Your task to perform on an android device: Go to network settings Image 0: 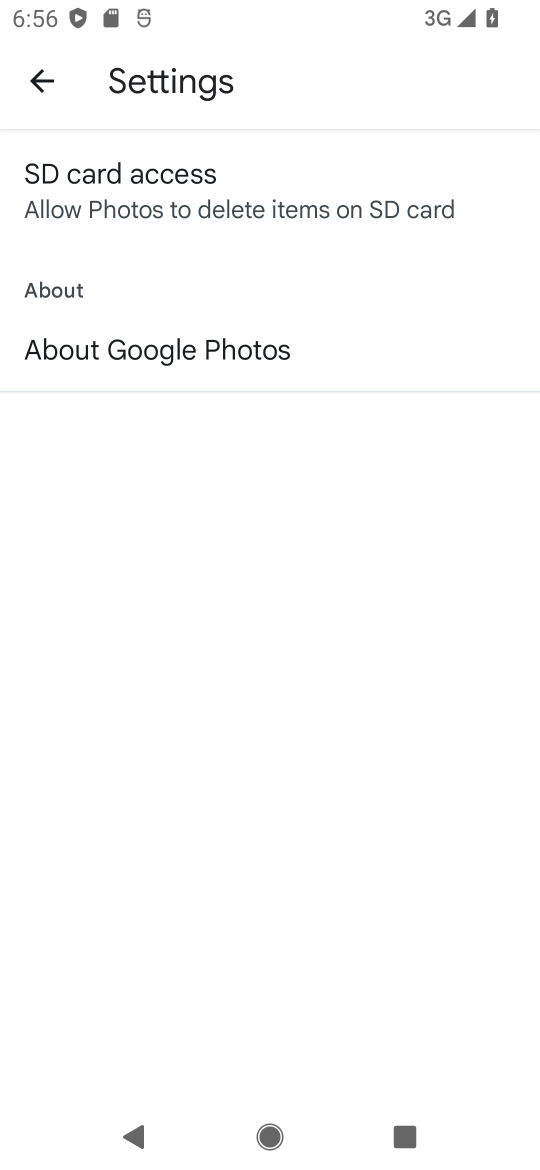
Step 0: press home button
Your task to perform on an android device: Go to network settings Image 1: 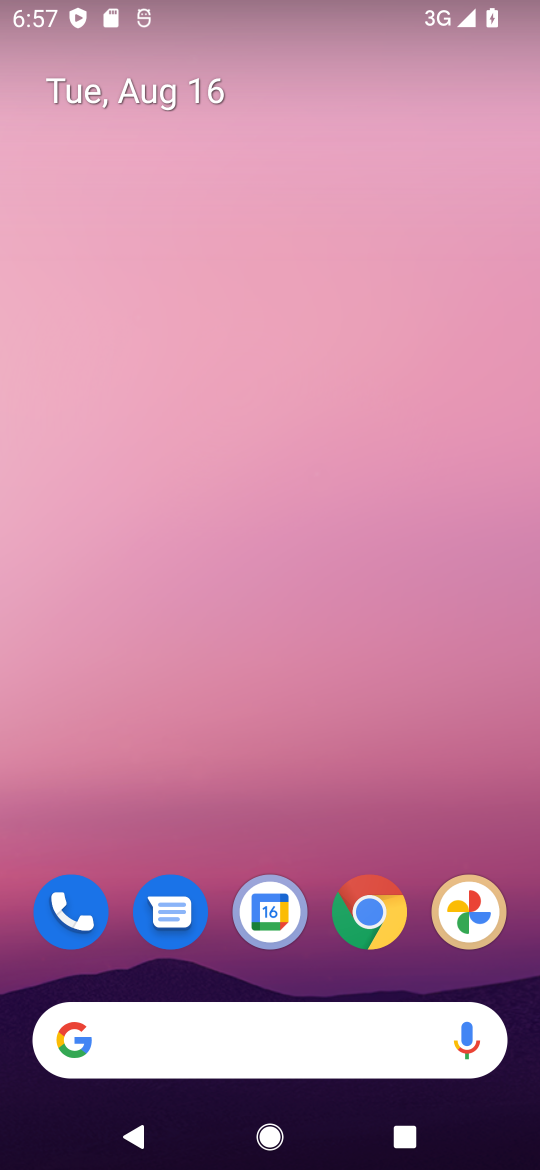
Step 1: drag from (422, 967) to (411, 197)
Your task to perform on an android device: Go to network settings Image 2: 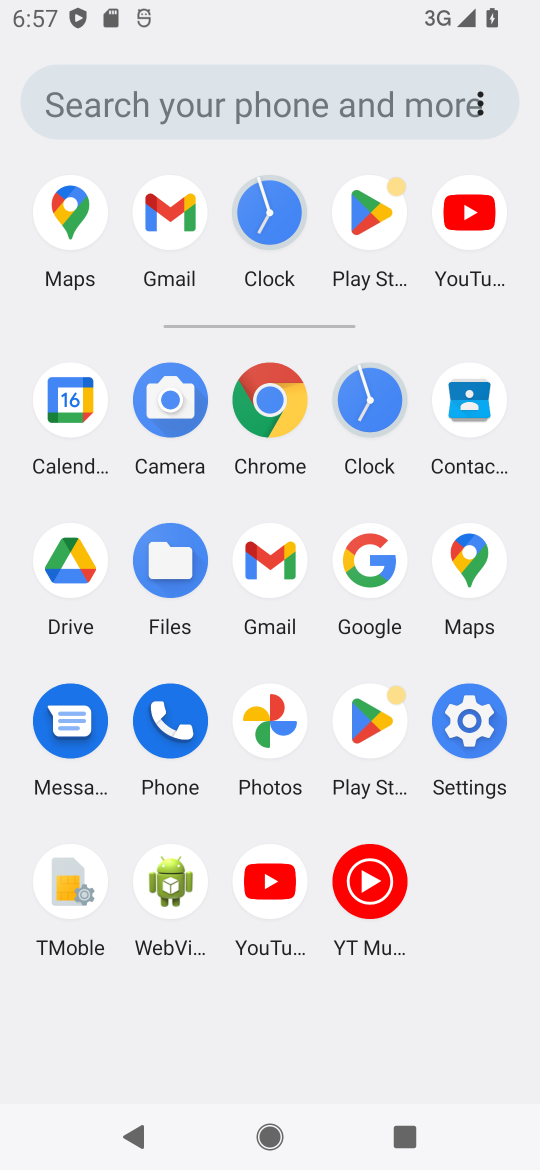
Step 2: click (470, 723)
Your task to perform on an android device: Go to network settings Image 3: 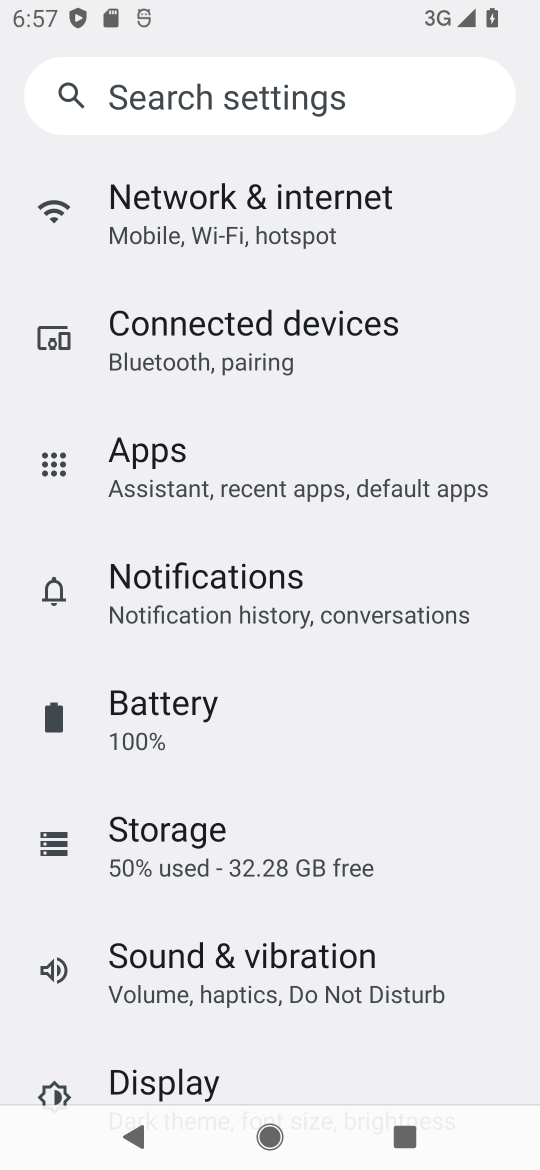
Step 3: click (152, 184)
Your task to perform on an android device: Go to network settings Image 4: 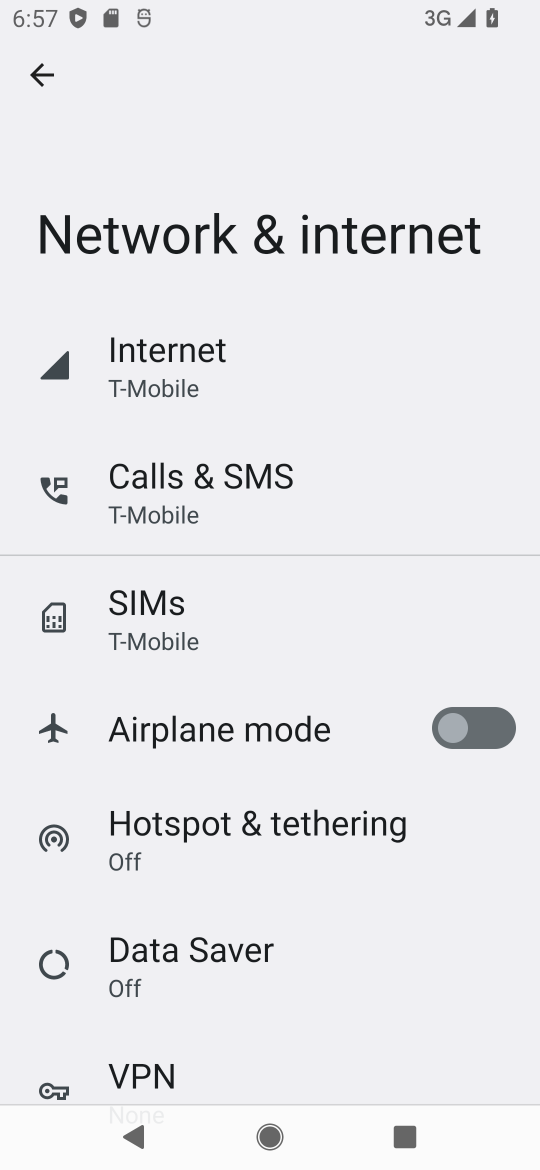
Step 4: click (161, 372)
Your task to perform on an android device: Go to network settings Image 5: 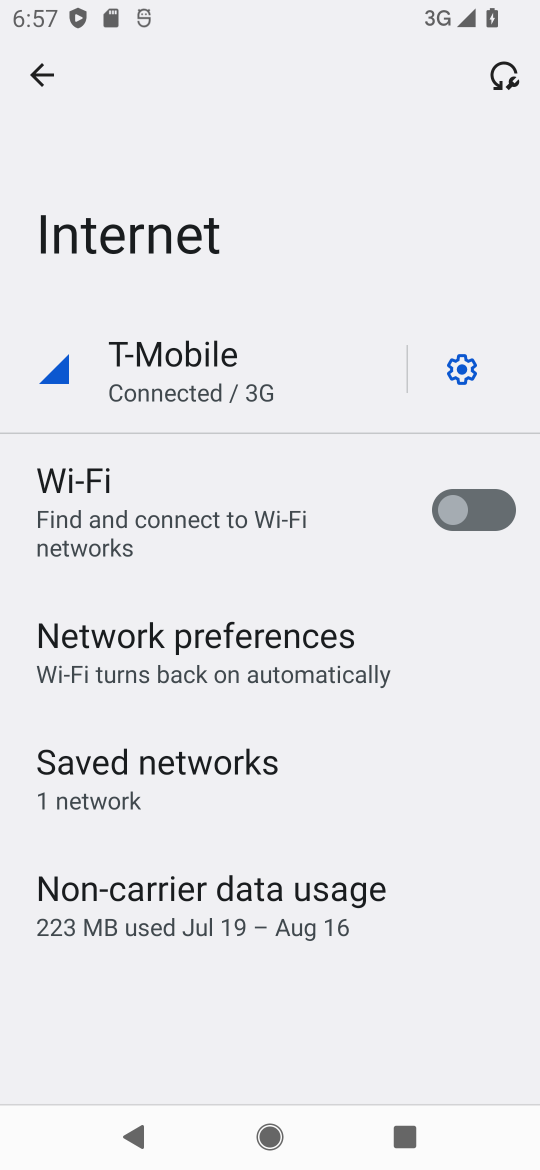
Step 5: task complete